Your task to perform on an android device: toggle show notifications on the lock screen Image 0: 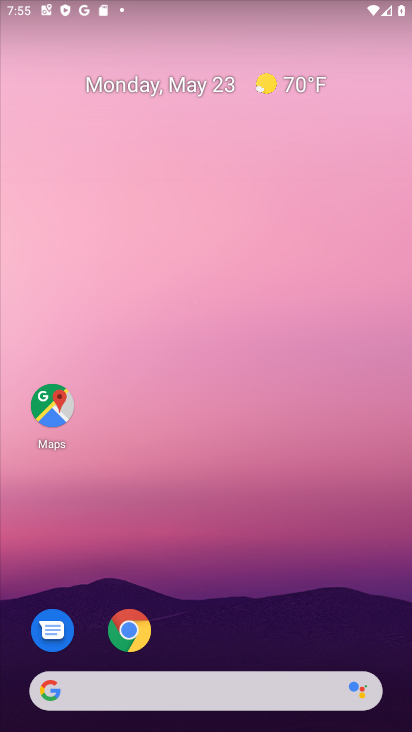
Step 0: drag from (287, 621) to (323, 156)
Your task to perform on an android device: toggle show notifications on the lock screen Image 1: 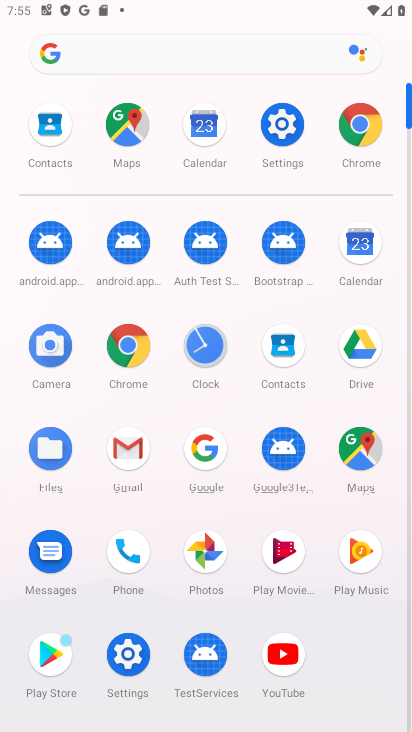
Step 1: click (287, 122)
Your task to perform on an android device: toggle show notifications on the lock screen Image 2: 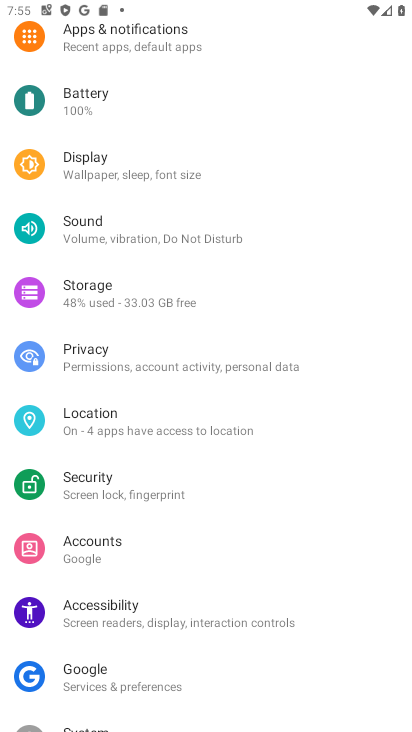
Step 2: click (177, 43)
Your task to perform on an android device: toggle show notifications on the lock screen Image 3: 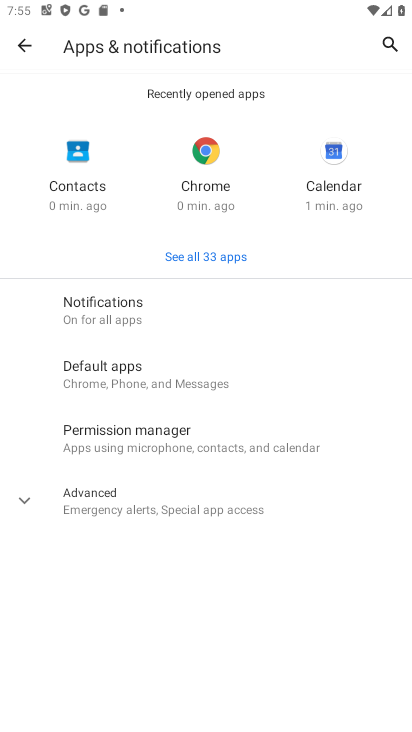
Step 3: click (159, 292)
Your task to perform on an android device: toggle show notifications on the lock screen Image 4: 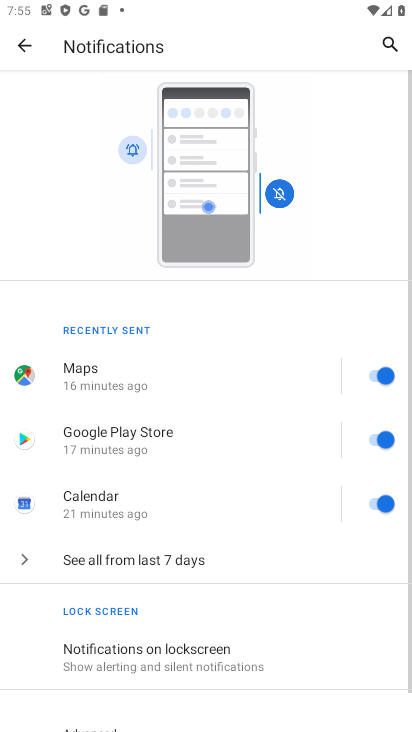
Step 4: click (187, 645)
Your task to perform on an android device: toggle show notifications on the lock screen Image 5: 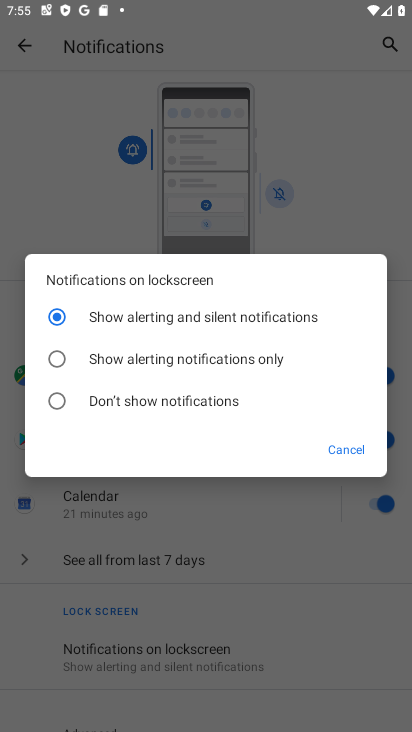
Step 5: click (158, 361)
Your task to perform on an android device: toggle show notifications on the lock screen Image 6: 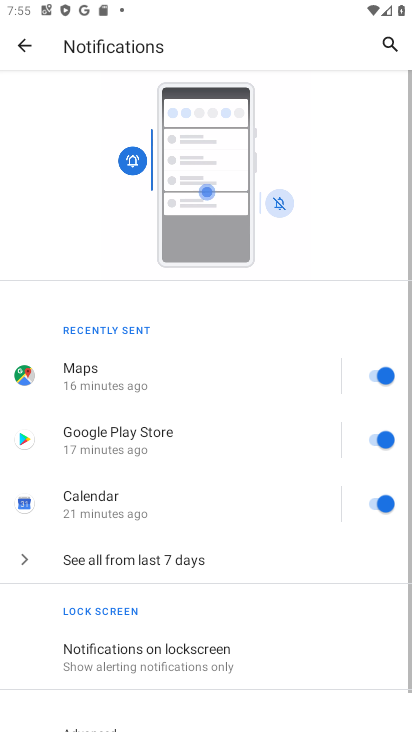
Step 6: task complete